Your task to perform on an android device: find photos in the google photos app Image 0: 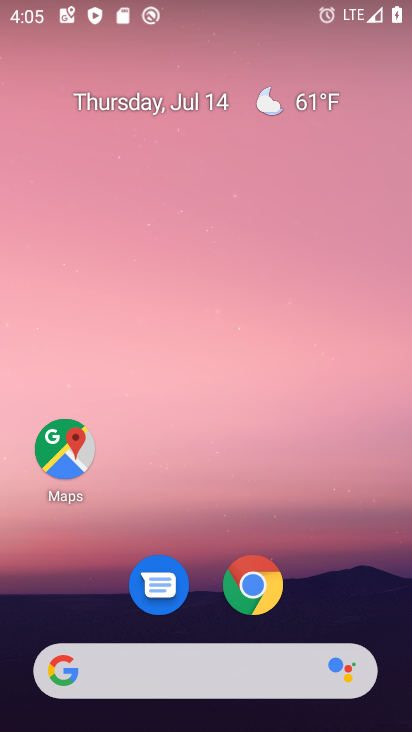
Step 0: drag from (340, 526) to (303, 39)
Your task to perform on an android device: find photos in the google photos app Image 1: 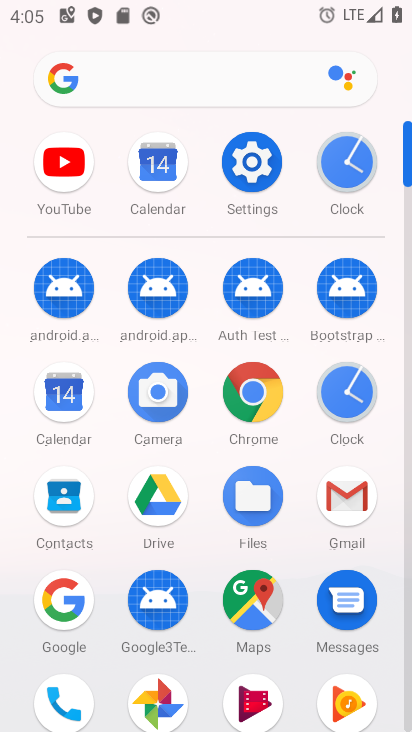
Step 1: click (146, 694)
Your task to perform on an android device: find photos in the google photos app Image 2: 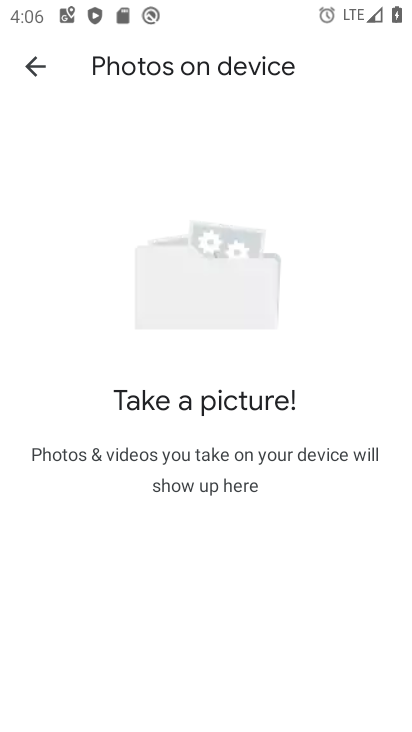
Step 2: click (39, 62)
Your task to perform on an android device: find photos in the google photos app Image 3: 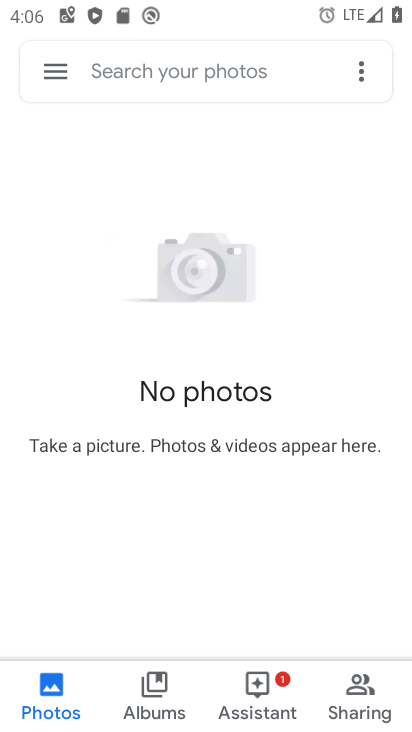
Step 3: click (57, 685)
Your task to perform on an android device: find photos in the google photos app Image 4: 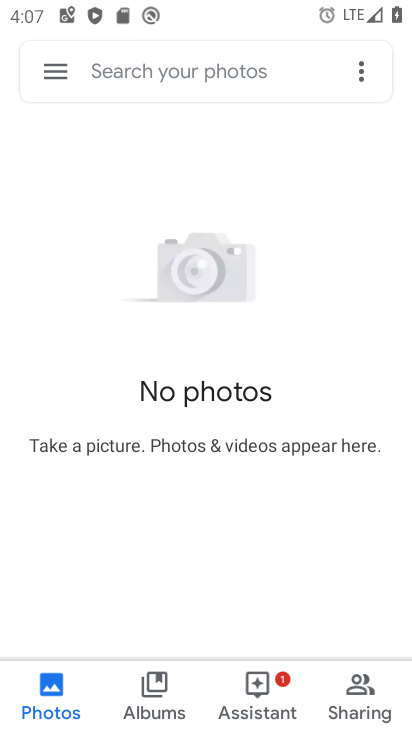
Step 4: task complete